Your task to perform on an android device: Open wifi settings Image 0: 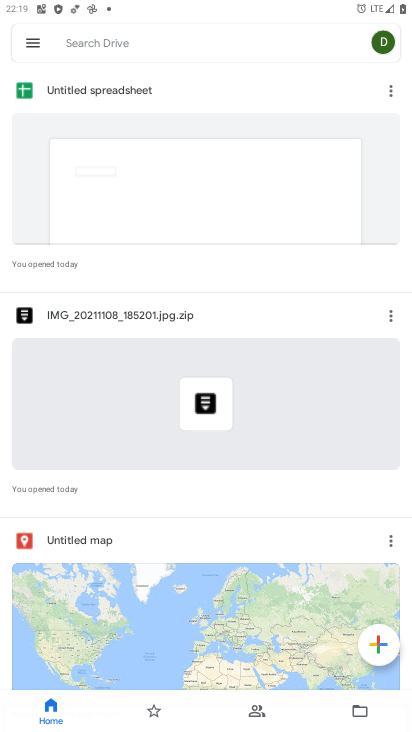
Step 0: press home button
Your task to perform on an android device: Open wifi settings Image 1: 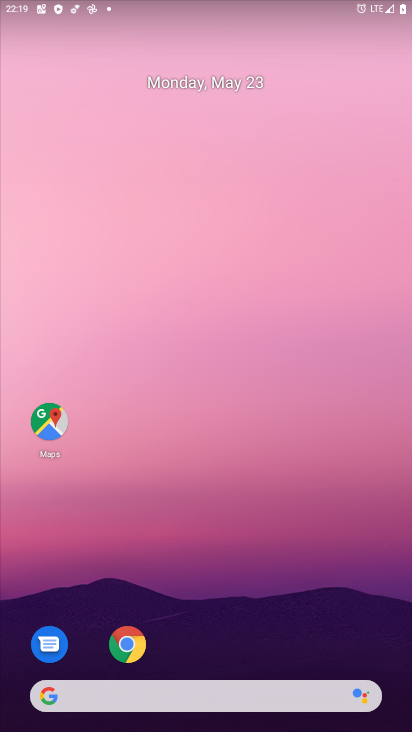
Step 1: drag from (177, 688) to (237, 296)
Your task to perform on an android device: Open wifi settings Image 2: 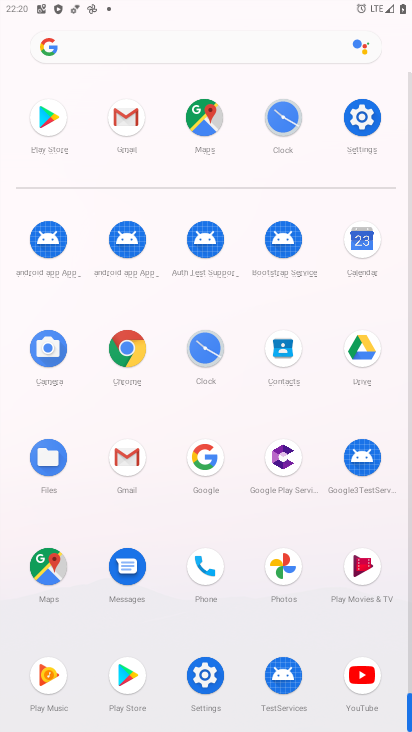
Step 2: click (363, 121)
Your task to perform on an android device: Open wifi settings Image 3: 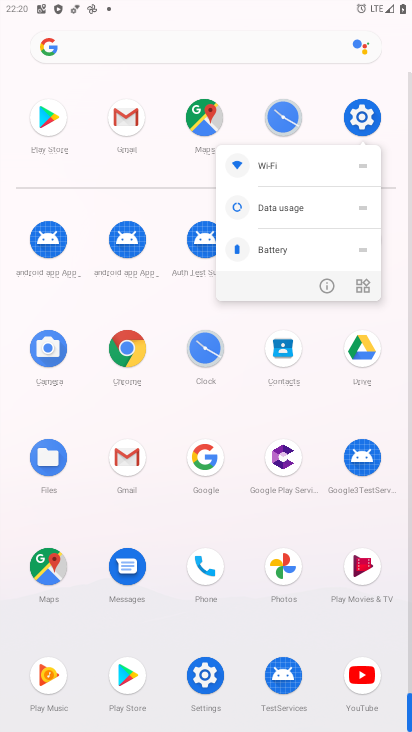
Step 3: click (360, 123)
Your task to perform on an android device: Open wifi settings Image 4: 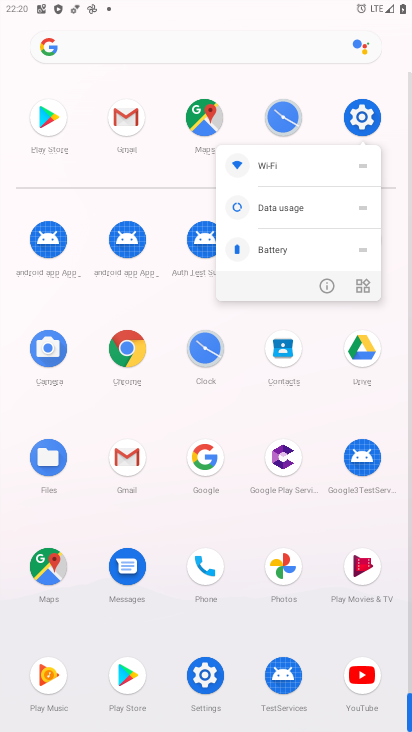
Step 4: click (360, 123)
Your task to perform on an android device: Open wifi settings Image 5: 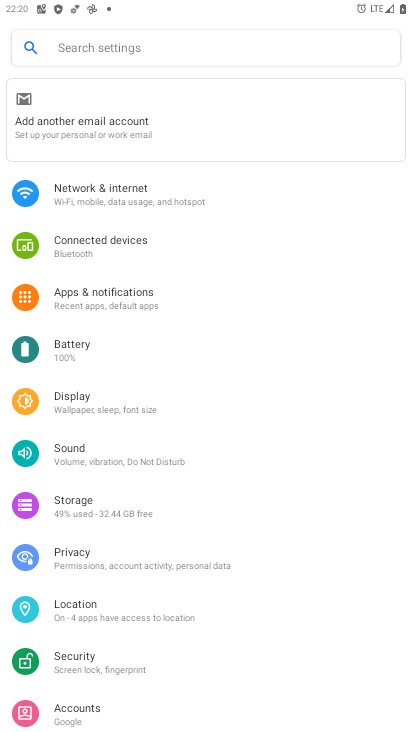
Step 5: click (173, 203)
Your task to perform on an android device: Open wifi settings Image 6: 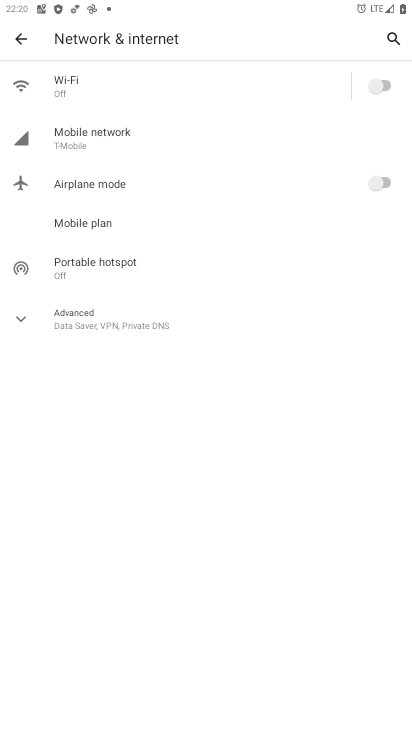
Step 6: click (95, 87)
Your task to perform on an android device: Open wifi settings Image 7: 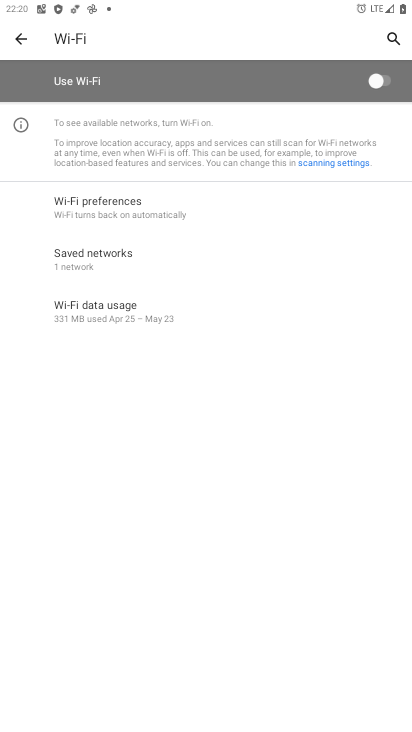
Step 7: task complete